Your task to perform on an android device: change text size in settings app Image 0: 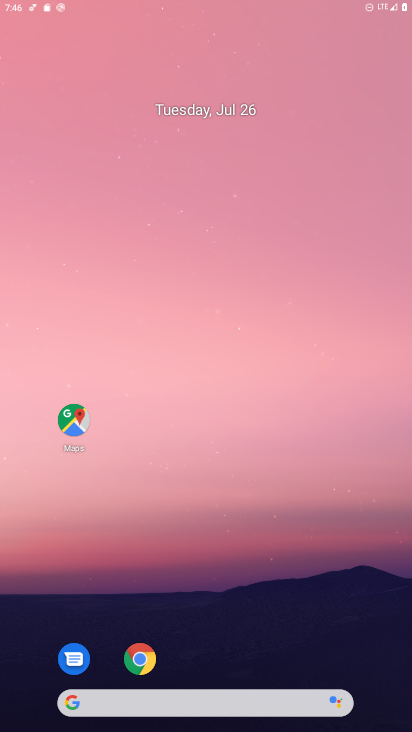
Step 0: click (278, 414)
Your task to perform on an android device: change text size in settings app Image 1: 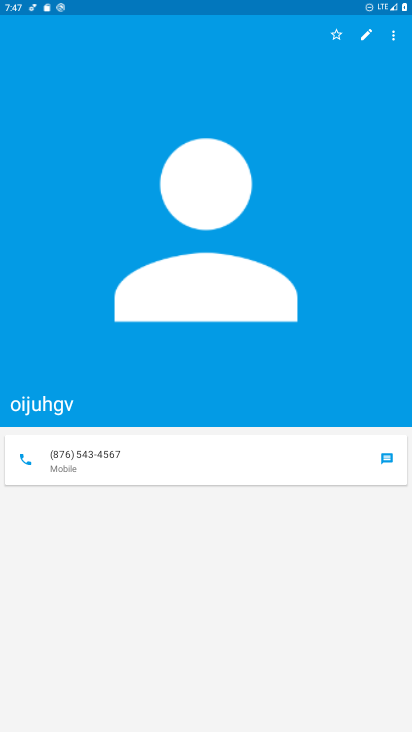
Step 1: press home button
Your task to perform on an android device: change text size in settings app Image 2: 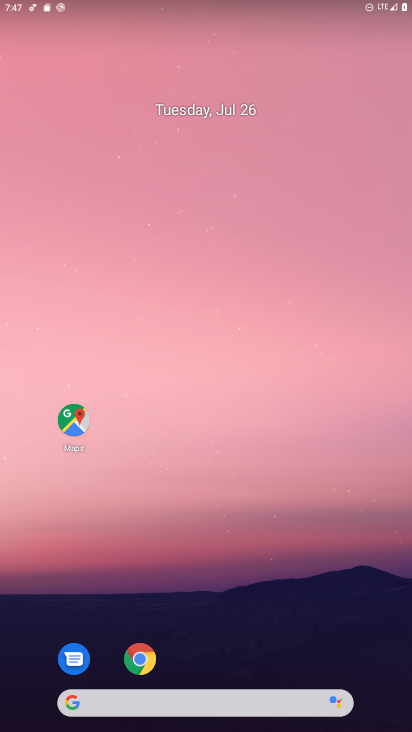
Step 2: drag from (205, 573) to (261, 294)
Your task to perform on an android device: change text size in settings app Image 3: 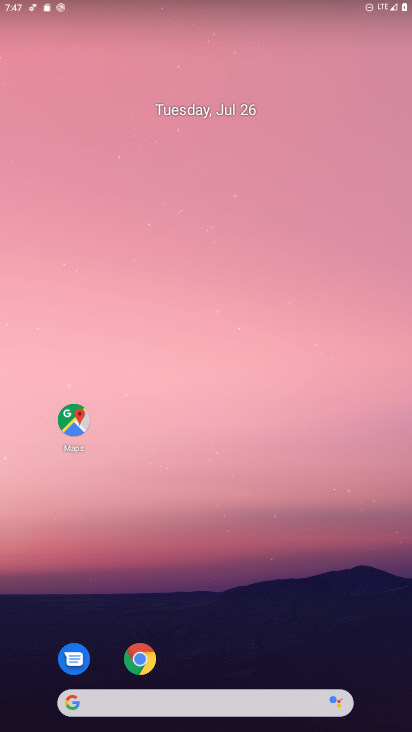
Step 3: drag from (177, 662) to (253, 247)
Your task to perform on an android device: change text size in settings app Image 4: 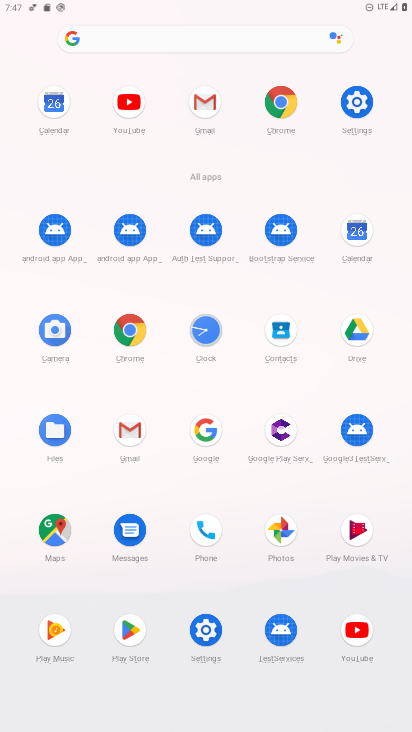
Step 4: click (207, 616)
Your task to perform on an android device: change text size in settings app Image 5: 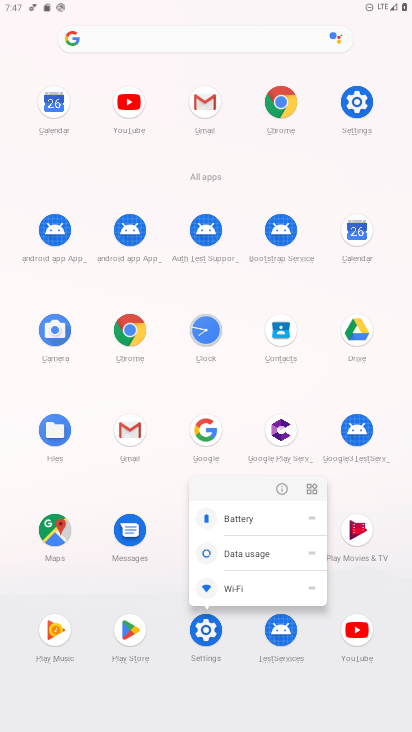
Step 5: click (283, 486)
Your task to perform on an android device: change text size in settings app Image 6: 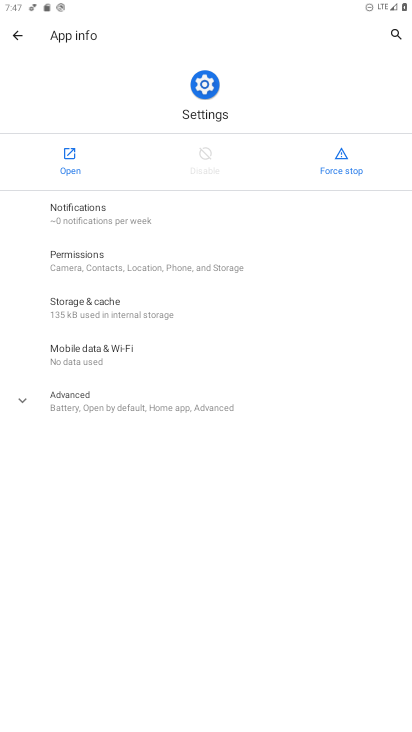
Step 6: click (63, 174)
Your task to perform on an android device: change text size in settings app Image 7: 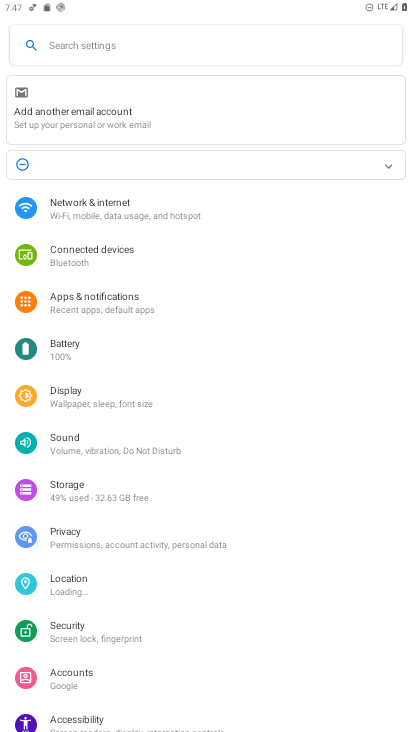
Step 7: click (131, 393)
Your task to perform on an android device: change text size in settings app Image 8: 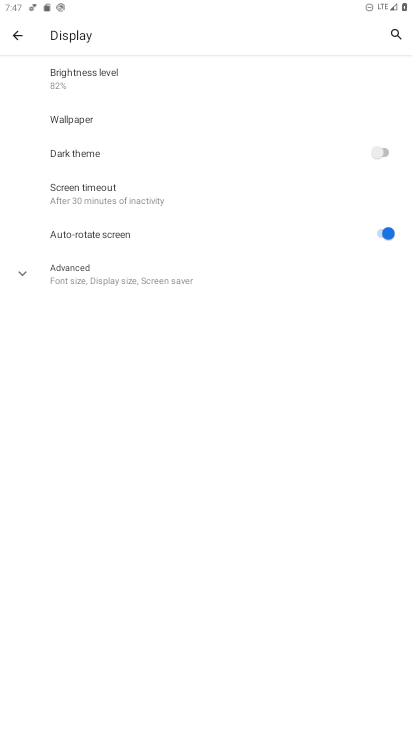
Step 8: click (117, 283)
Your task to perform on an android device: change text size in settings app Image 9: 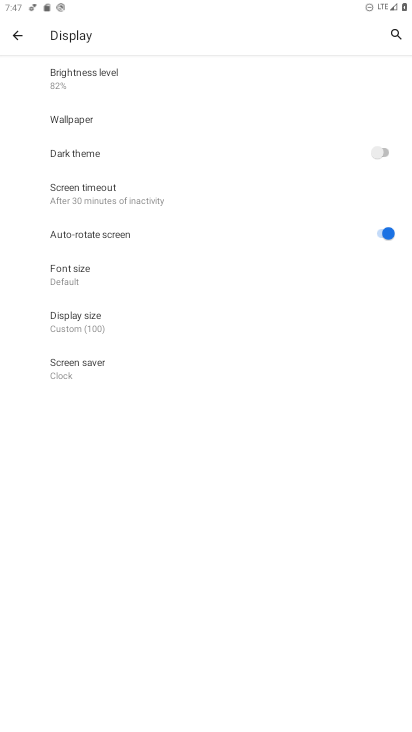
Step 9: click (115, 284)
Your task to perform on an android device: change text size in settings app Image 10: 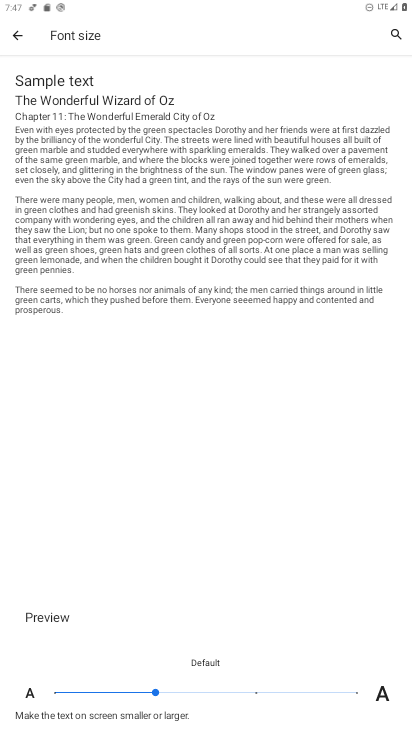
Step 10: drag from (178, 510) to (230, 268)
Your task to perform on an android device: change text size in settings app Image 11: 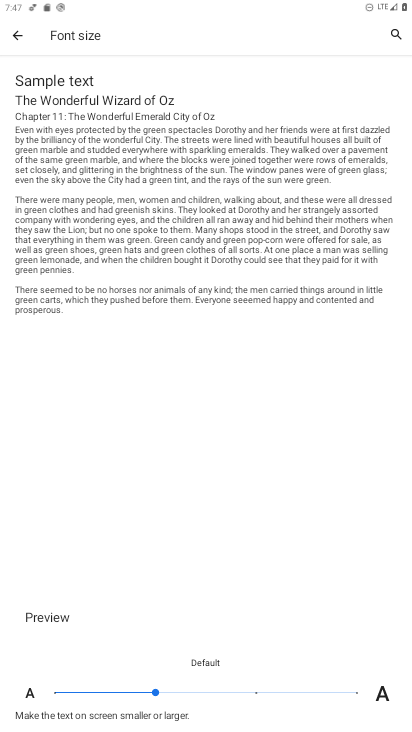
Step 11: click (355, 689)
Your task to perform on an android device: change text size in settings app Image 12: 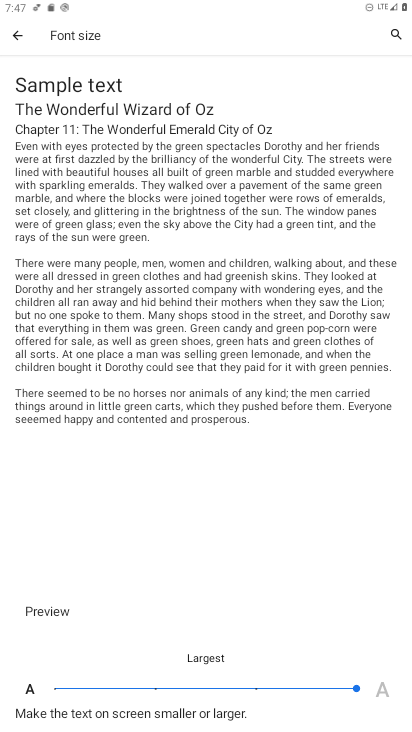
Step 12: task complete